Your task to perform on an android device: Open sound settings Image 0: 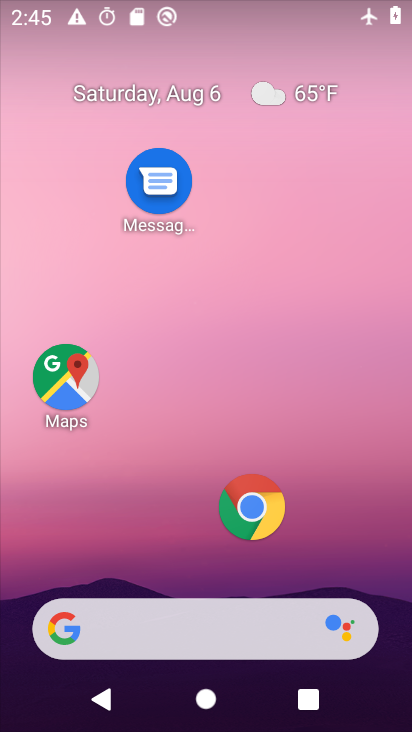
Step 0: drag from (176, 585) to (189, 239)
Your task to perform on an android device: Open sound settings Image 1: 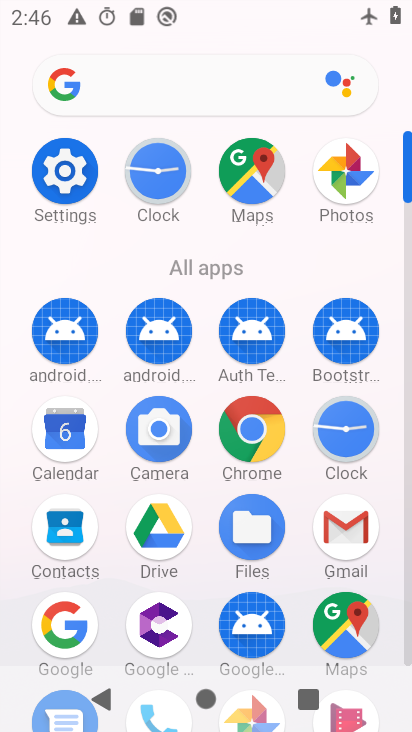
Step 1: click (69, 196)
Your task to perform on an android device: Open sound settings Image 2: 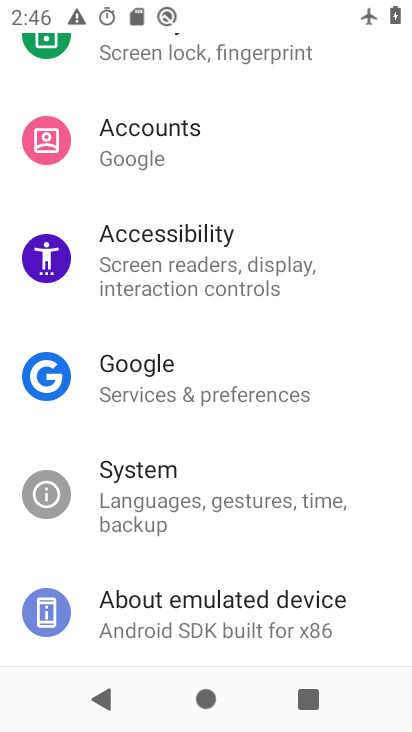
Step 2: drag from (205, 316) to (213, 592)
Your task to perform on an android device: Open sound settings Image 3: 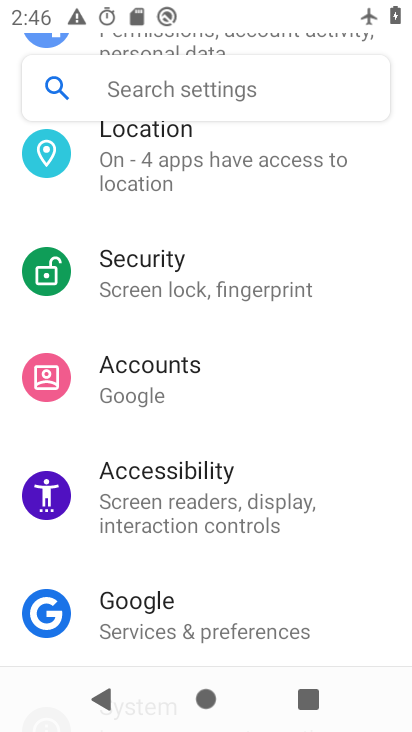
Step 3: drag from (225, 317) to (215, 572)
Your task to perform on an android device: Open sound settings Image 4: 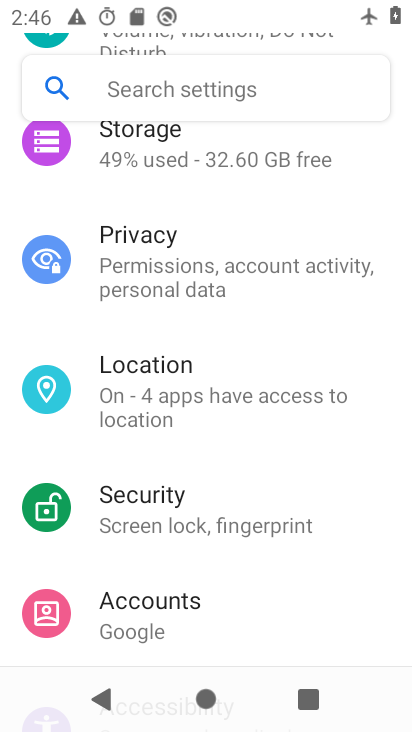
Step 4: drag from (229, 301) to (236, 634)
Your task to perform on an android device: Open sound settings Image 5: 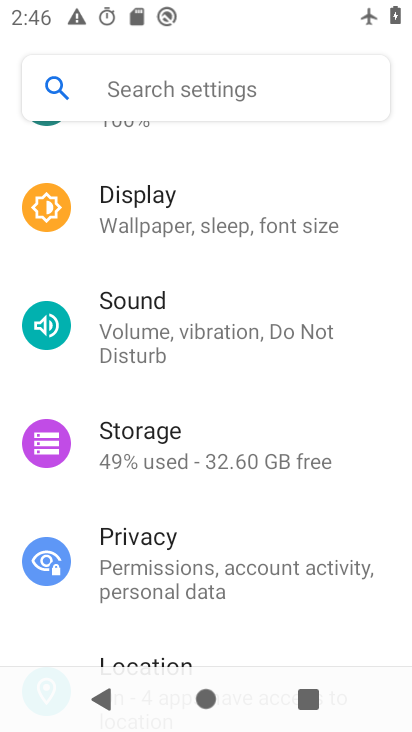
Step 5: click (195, 341)
Your task to perform on an android device: Open sound settings Image 6: 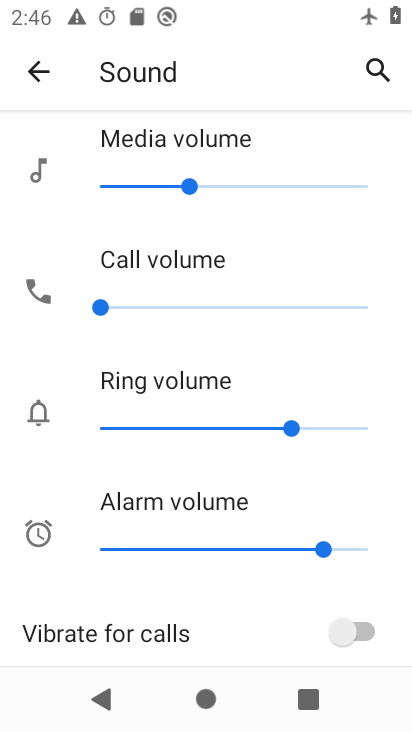
Step 6: task complete